Your task to perform on an android device: Is it going to rain tomorrow? Image 0: 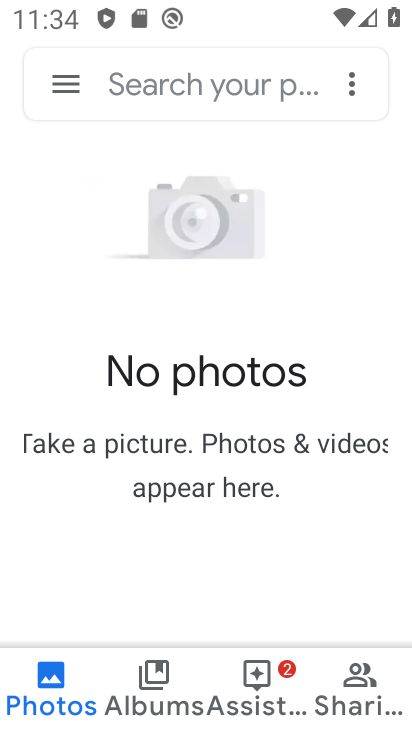
Step 0: press home button
Your task to perform on an android device: Is it going to rain tomorrow? Image 1: 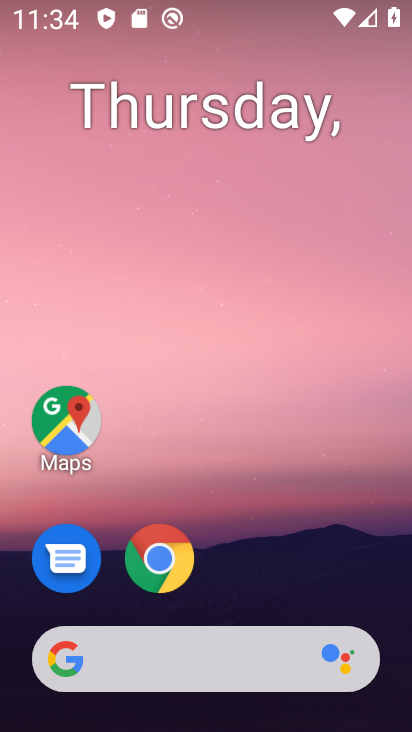
Step 1: click (277, 660)
Your task to perform on an android device: Is it going to rain tomorrow? Image 2: 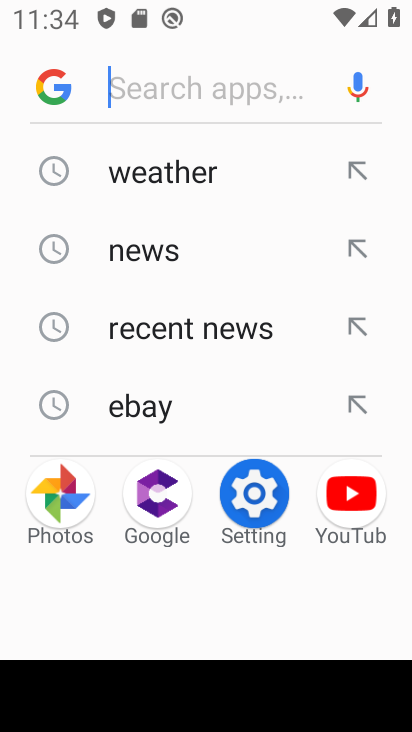
Step 2: click (233, 183)
Your task to perform on an android device: Is it going to rain tomorrow? Image 3: 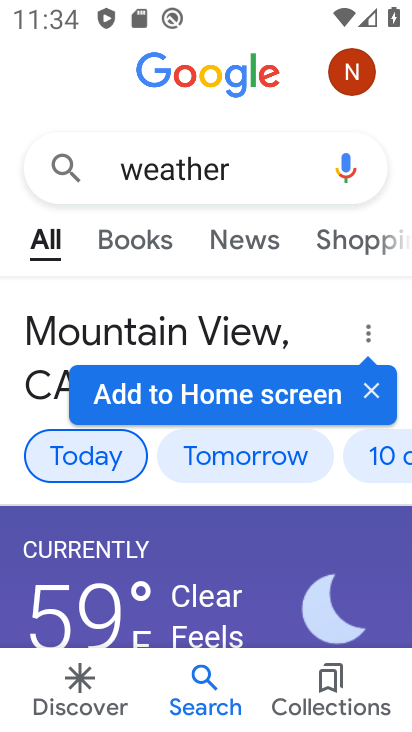
Step 3: click (247, 448)
Your task to perform on an android device: Is it going to rain tomorrow? Image 4: 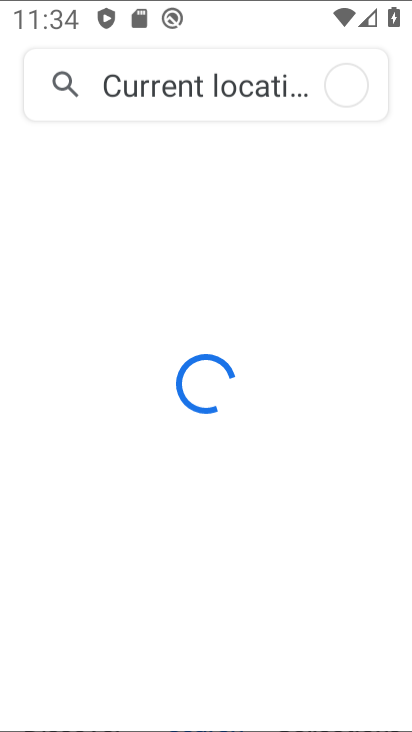
Step 4: click (252, 449)
Your task to perform on an android device: Is it going to rain tomorrow? Image 5: 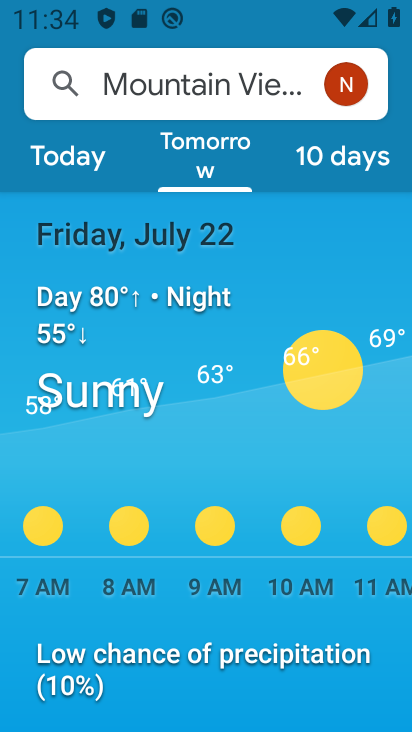
Step 5: task complete